Your task to perform on an android device: delete the emails in spam in the gmail app Image 0: 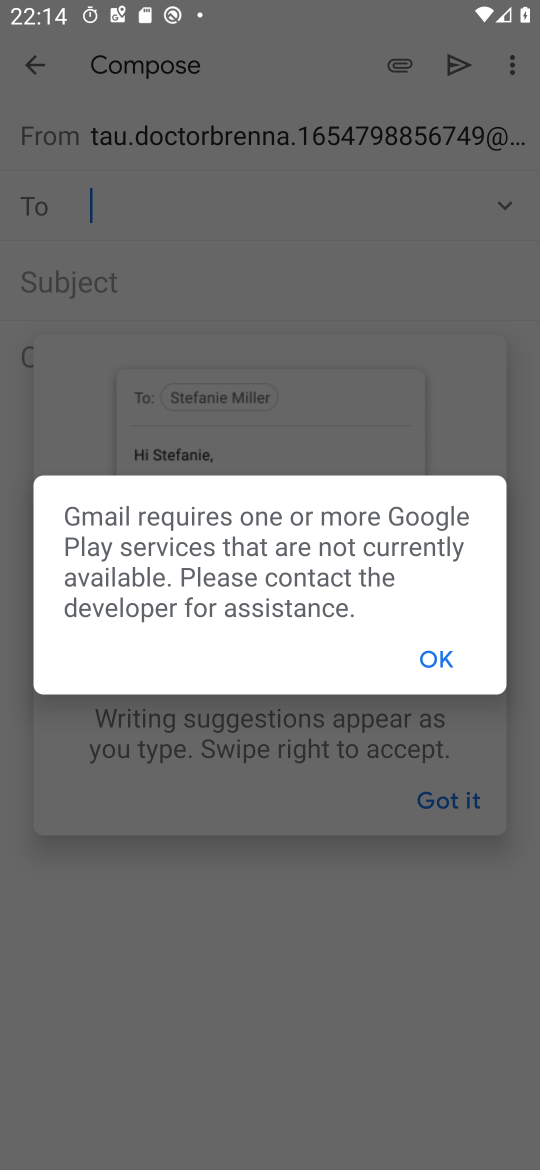
Step 0: press home button
Your task to perform on an android device: delete the emails in spam in the gmail app Image 1: 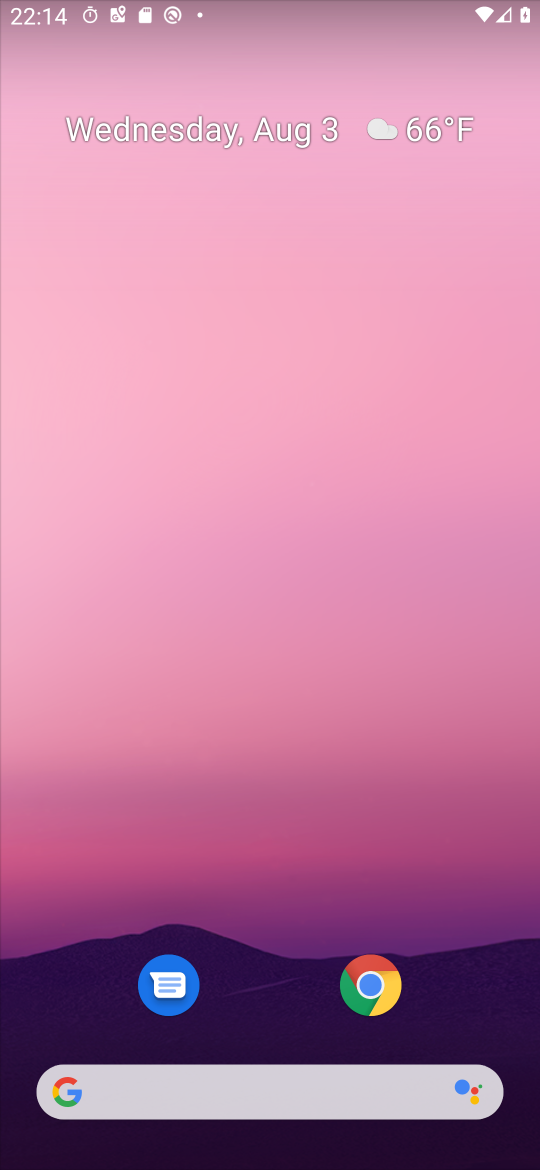
Step 1: drag from (245, 994) to (241, 360)
Your task to perform on an android device: delete the emails in spam in the gmail app Image 2: 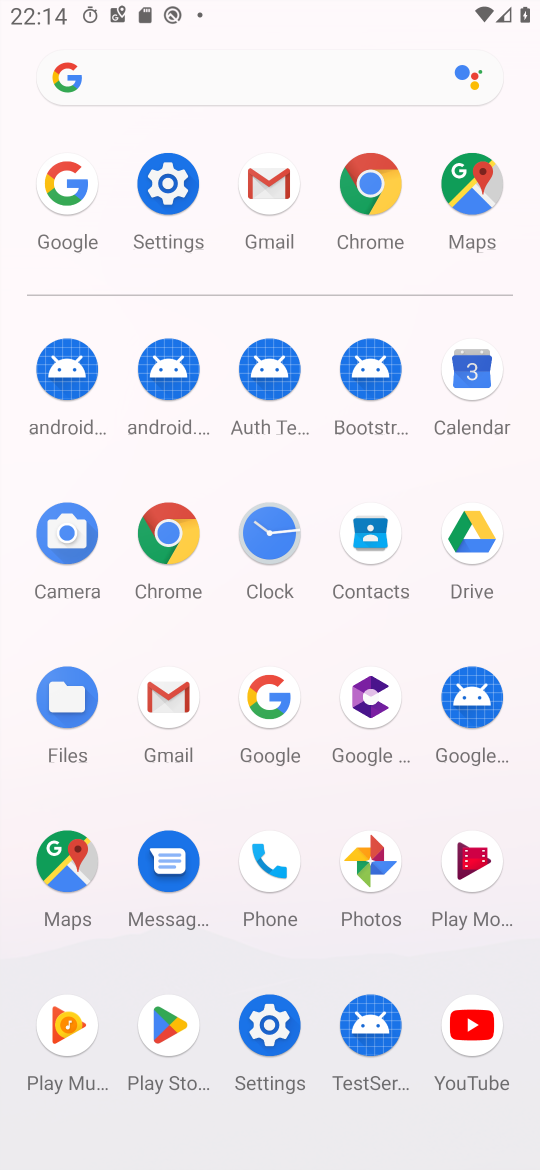
Step 2: click (173, 678)
Your task to perform on an android device: delete the emails in spam in the gmail app Image 3: 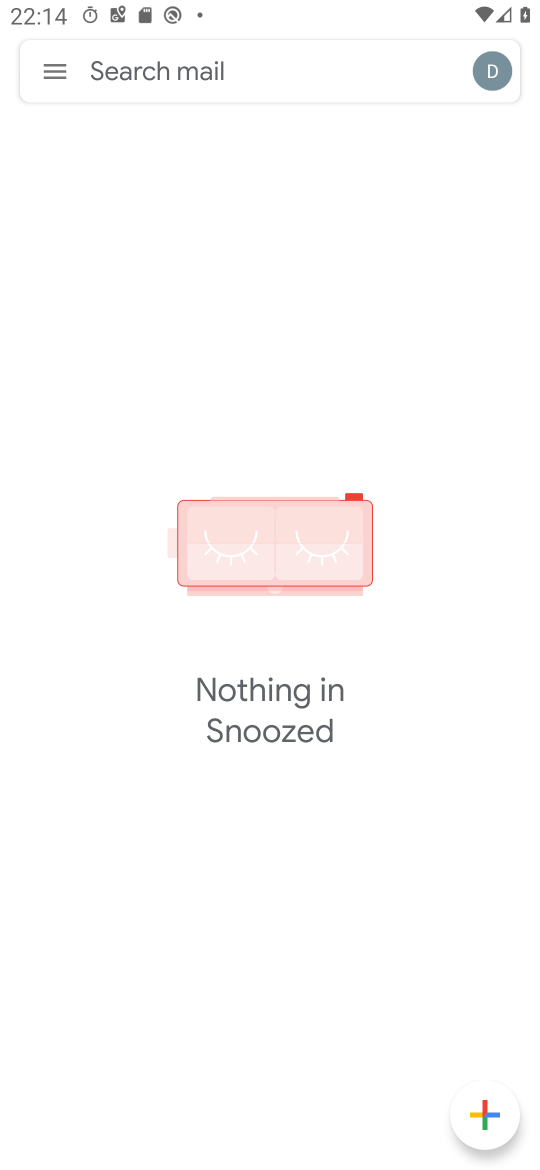
Step 3: click (45, 82)
Your task to perform on an android device: delete the emails in spam in the gmail app Image 4: 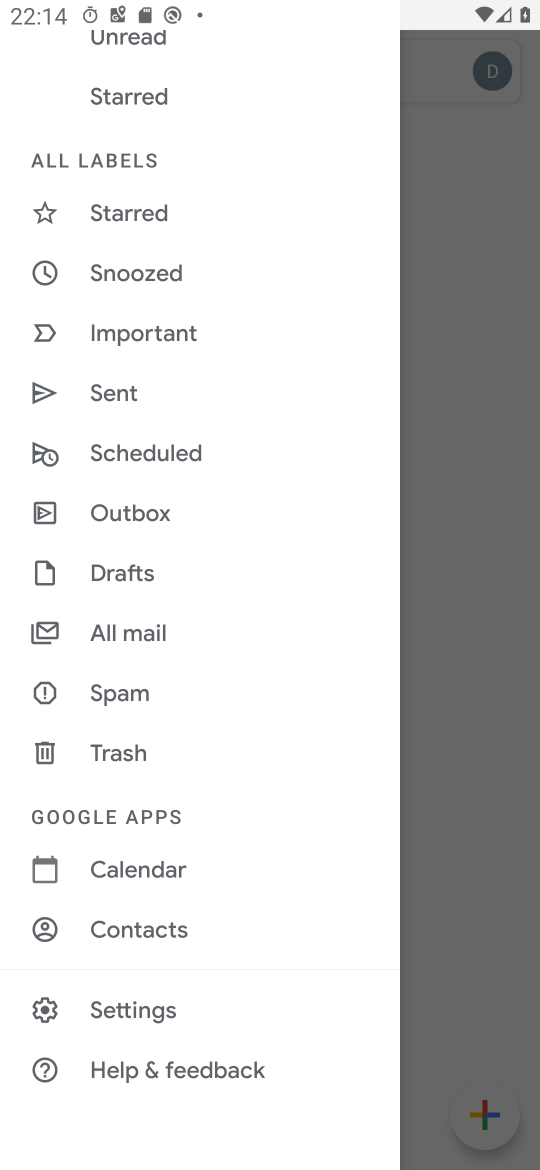
Step 4: click (152, 620)
Your task to perform on an android device: delete the emails in spam in the gmail app Image 5: 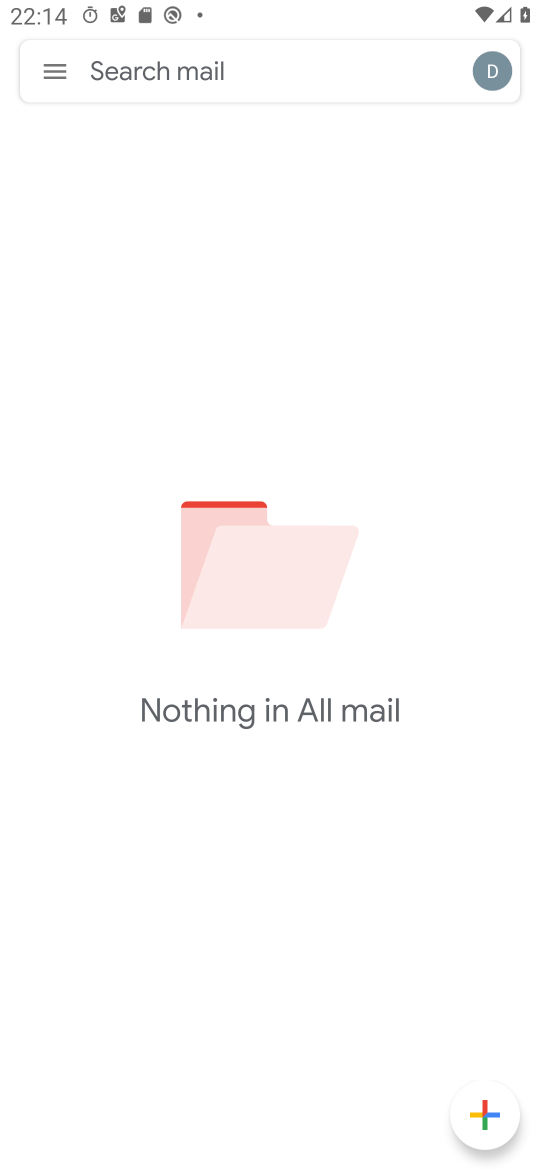
Step 5: task complete